Your task to perform on an android device: Go to Amazon Image 0: 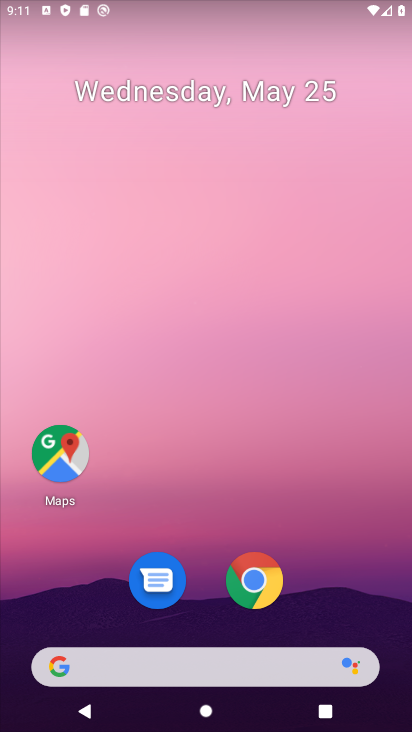
Step 0: press home button
Your task to perform on an android device: Go to Amazon Image 1: 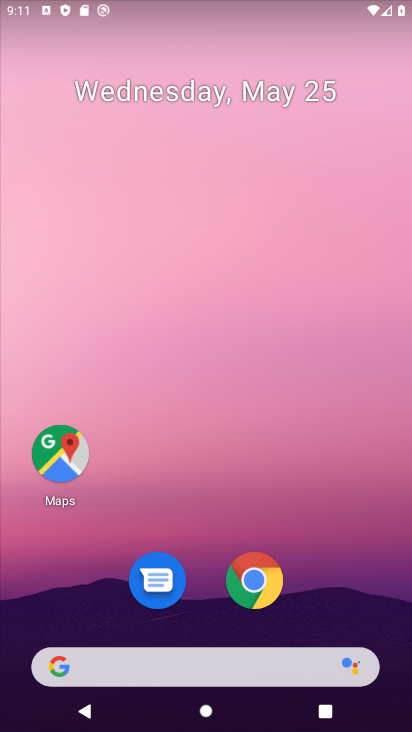
Step 1: click (272, 583)
Your task to perform on an android device: Go to Amazon Image 2: 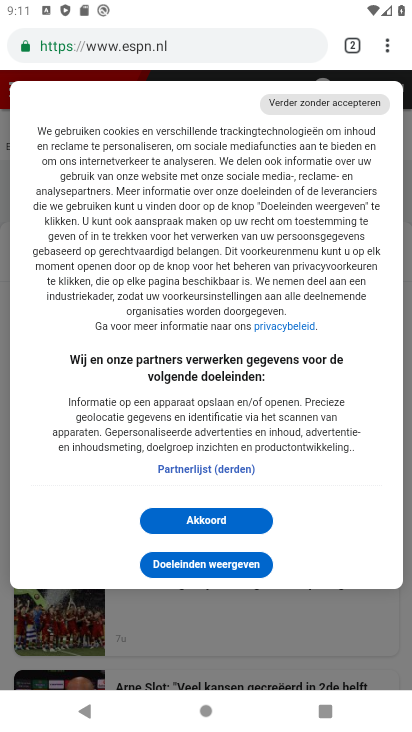
Step 2: click (348, 34)
Your task to perform on an android device: Go to Amazon Image 3: 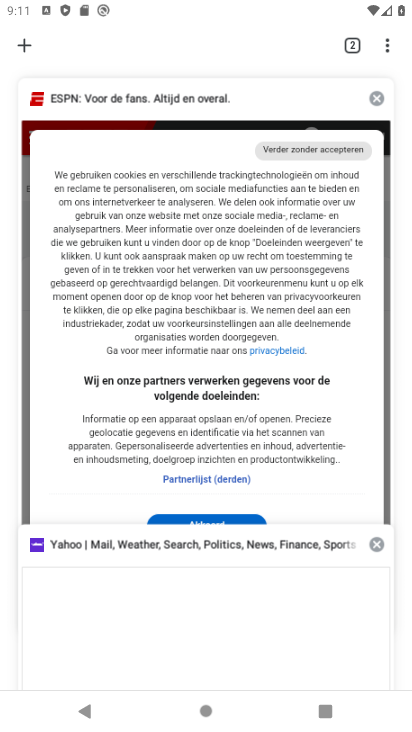
Step 3: click (380, 99)
Your task to perform on an android device: Go to Amazon Image 4: 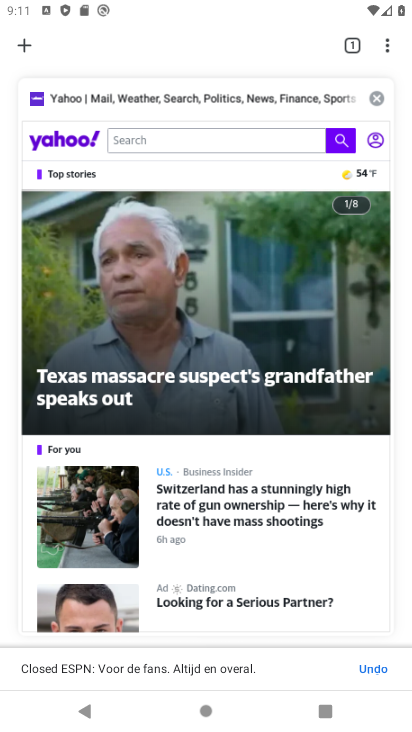
Step 4: click (381, 100)
Your task to perform on an android device: Go to Amazon Image 5: 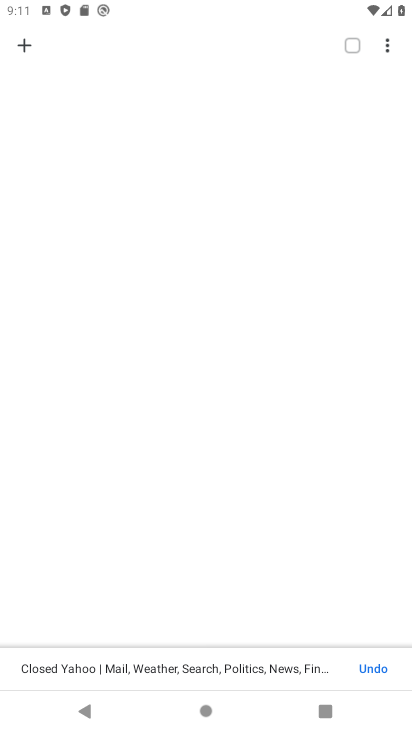
Step 5: click (26, 49)
Your task to perform on an android device: Go to Amazon Image 6: 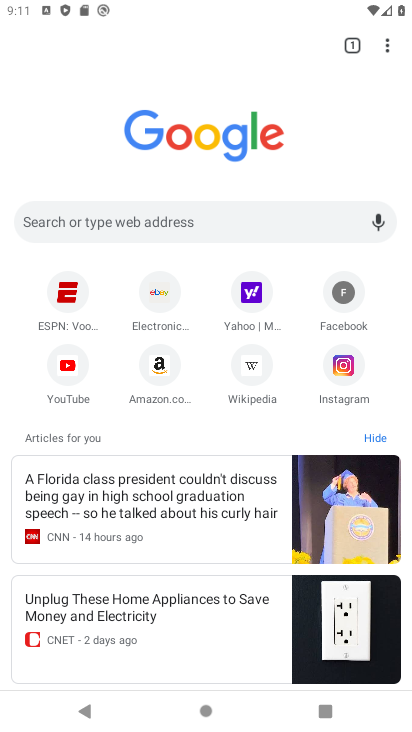
Step 6: click (148, 351)
Your task to perform on an android device: Go to Amazon Image 7: 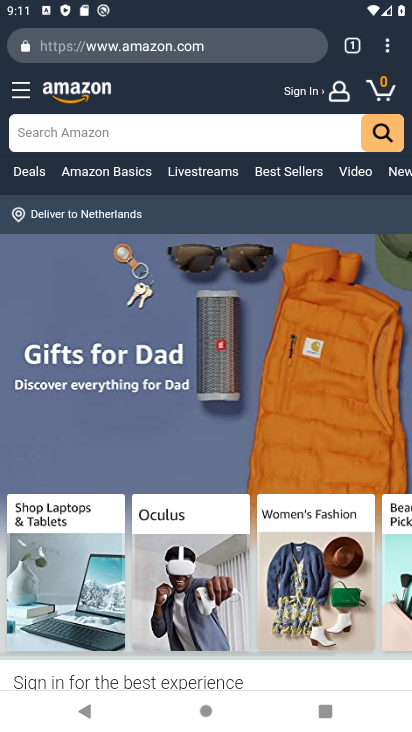
Step 7: task complete